Your task to perform on an android device: Go to Reddit.com Image 0: 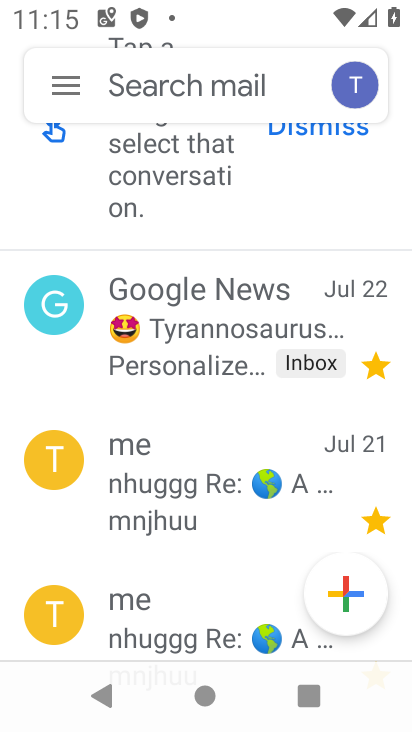
Step 0: press home button
Your task to perform on an android device: Go to Reddit.com Image 1: 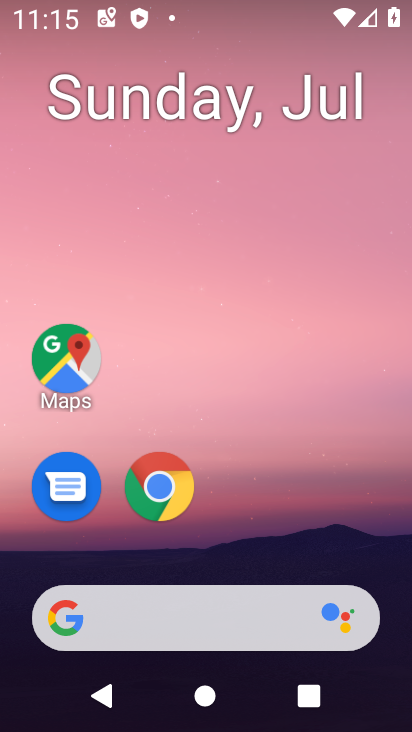
Step 1: drag from (354, 541) to (354, 302)
Your task to perform on an android device: Go to Reddit.com Image 2: 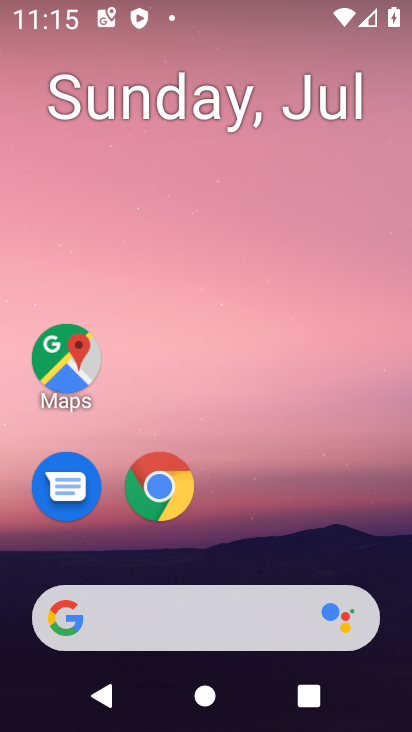
Step 2: drag from (362, 531) to (319, 69)
Your task to perform on an android device: Go to Reddit.com Image 3: 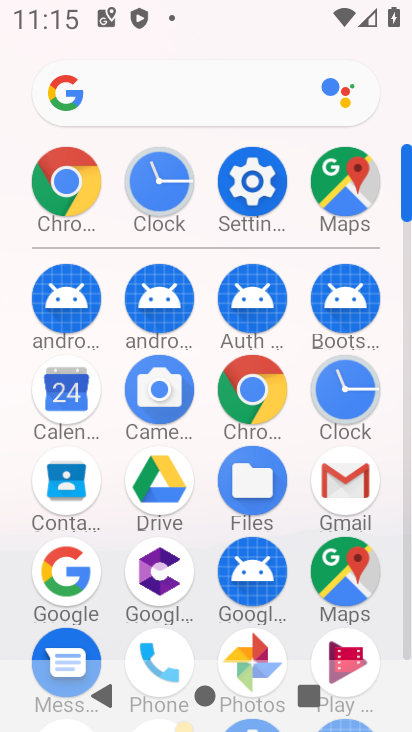
Step 3: click (251, 387)
Your task to perform on an android device: Go to Reddit.com Image 4: 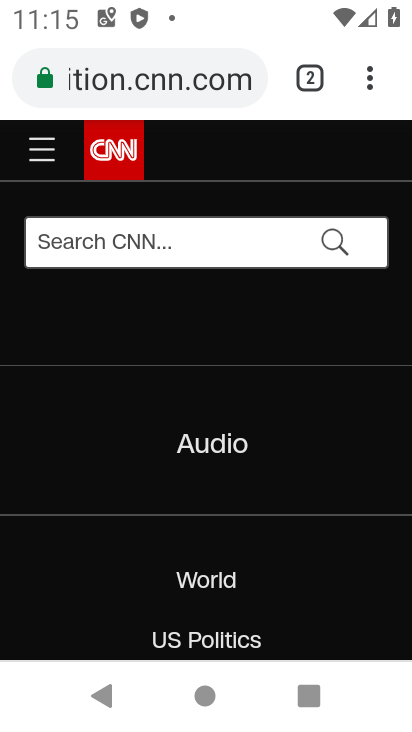
Step 4: click (209, 86)
Your task to perform on an android device: Go to Reddit.com Image 5: 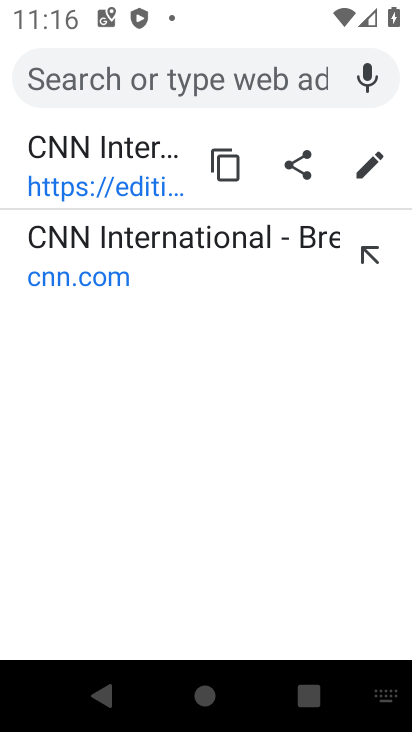
Step 5: type "reddit.com"
Your task to perform on an android device: Go to Reddit.com Image 6: 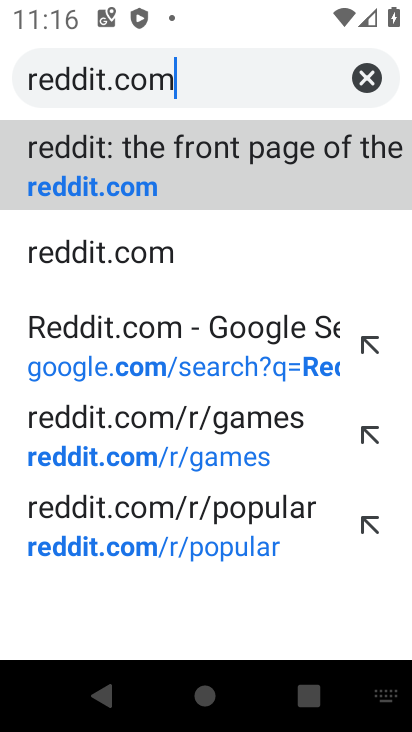
Step 6: click (315, 177)
Your task to perform on an android device: Go to Reddit.com Image 7: 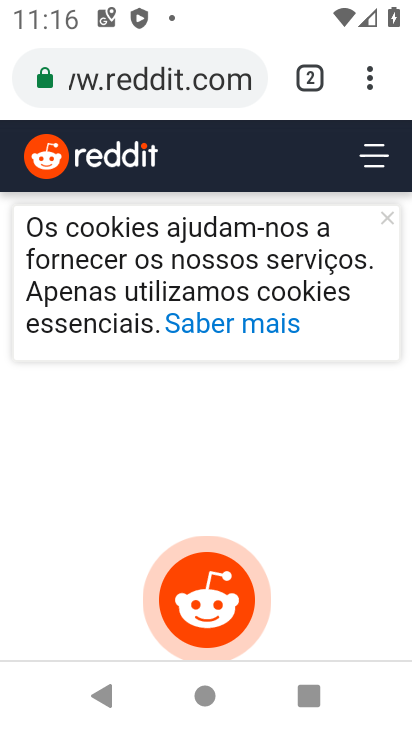
Step 7: task complete